Your task to perform on an android device: Show me recent news Image 0: 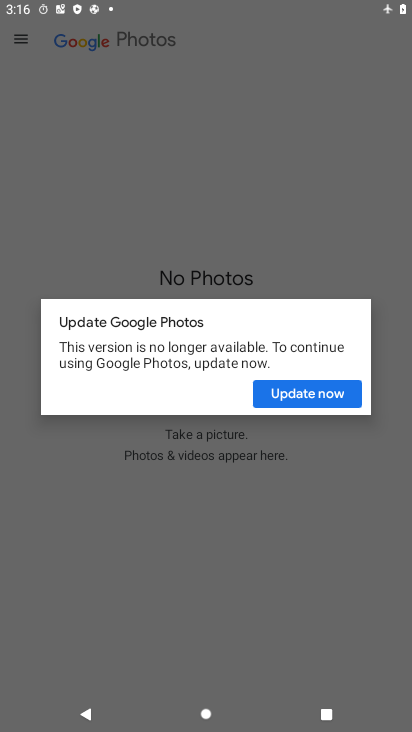
Step 0: press home button
Your task to perform on an android device: Show me recent news Image 1: 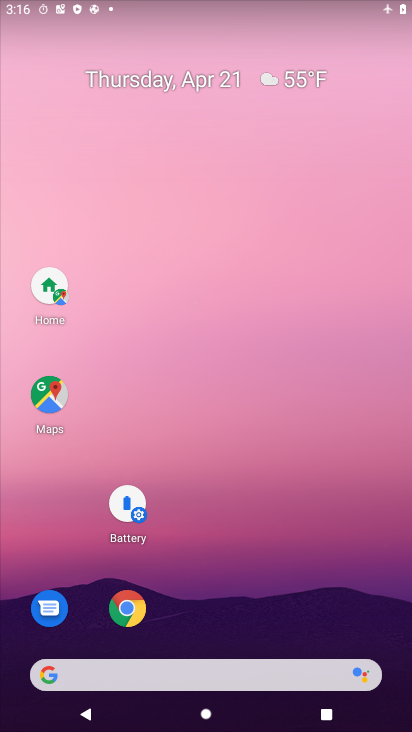
Step 1: drag from (334, 537) to (318, 99)
Your task to perform on an android device: Show me recent news Image 2: 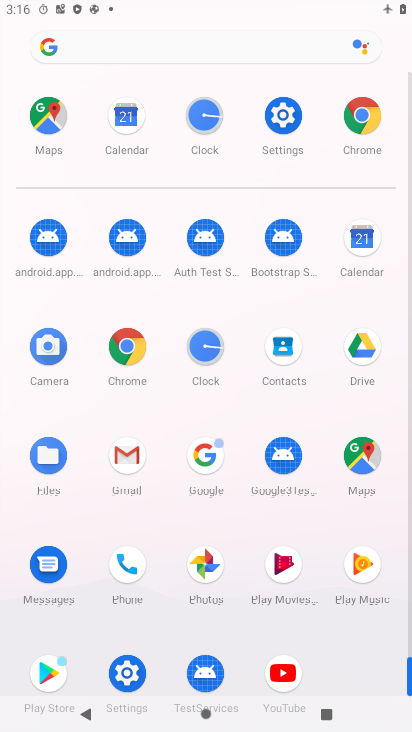
Step 2: click (350, 128)
Your task to perform on an android device: Show me recent news Image 3: 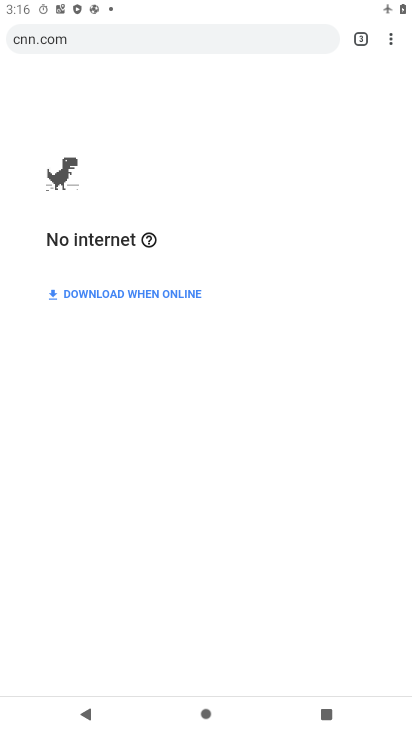
Step 3: task complete